Your task to perform on an android device: open sync settings in chrome Image 0: 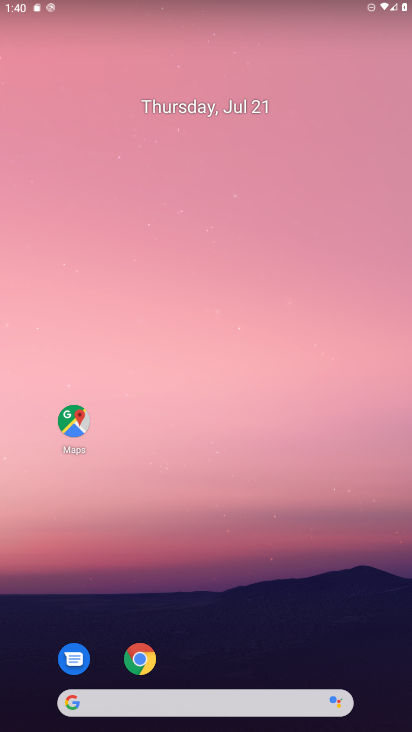
Step 0: task complete